Your task to perform on an android device: change the clock display to analog Image 0: 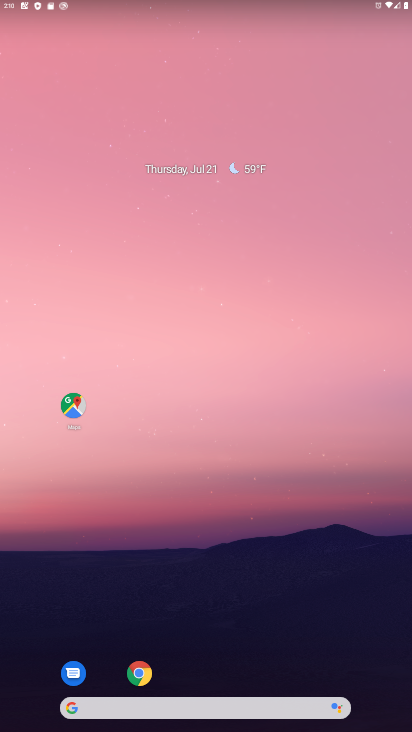
Step 0: drag from (208, 707) to (204, 157)
Your task to perform on an android device: change the clock display to analog Image 1: 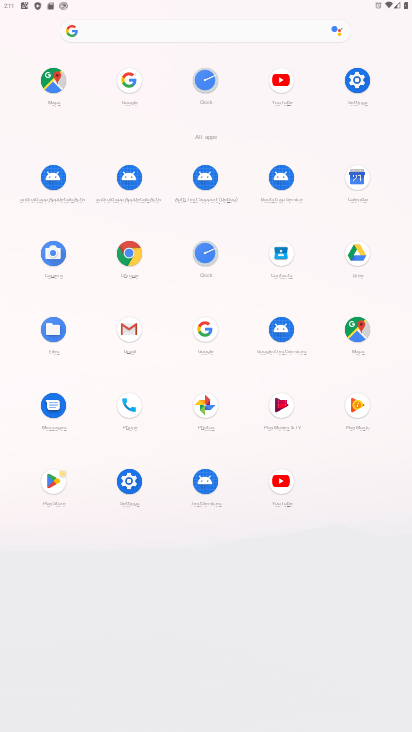
Step 1: click (207, 254)
Your task to perform on an android device: change the clock display to analog Image 2: 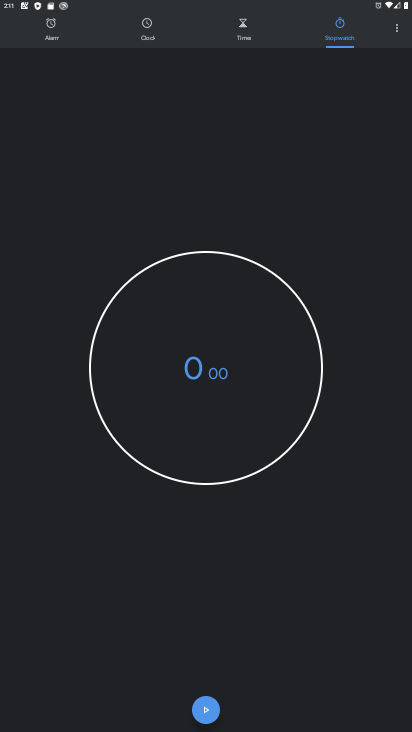
Step 2: click (399, 32)
Your task to perform on an android device: change the clock display to analog Image 3: 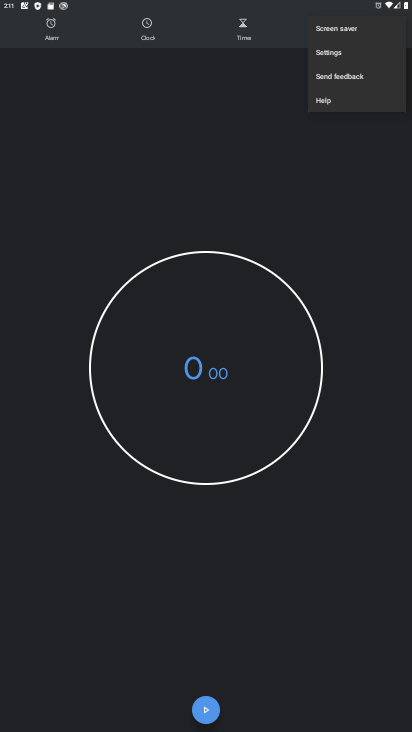
Step 3: click (342, 57)
Your task to perform on an android device: change the clock display to analog Image 4: 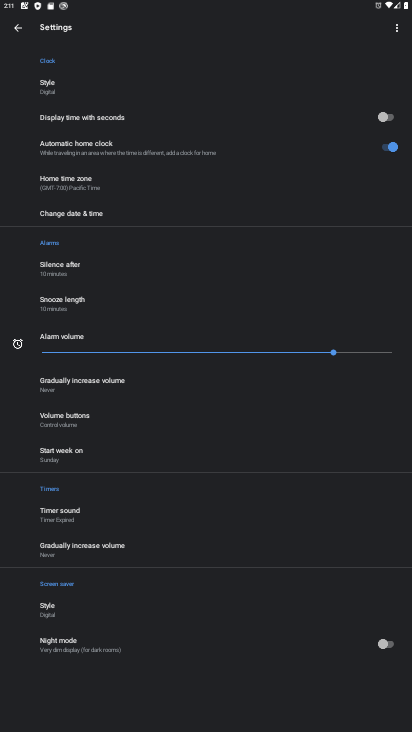
Step 4: click (52, 93)
Your task to perform on an android device: change the clock display to analog Image 5: 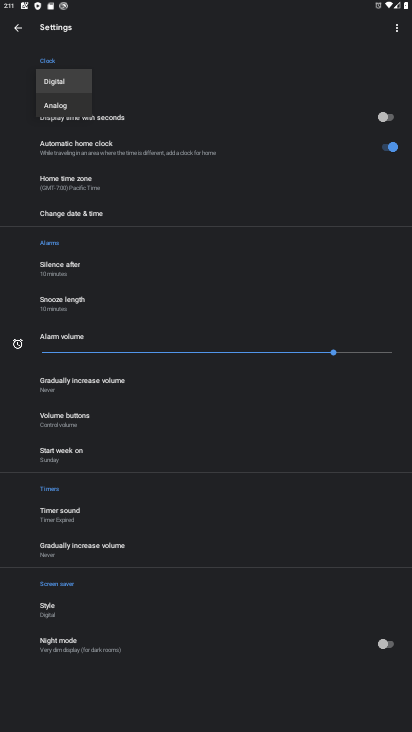
Step 5: click (57, 105)
Your task to perform on an android device: change the clock display to analog Image 6: 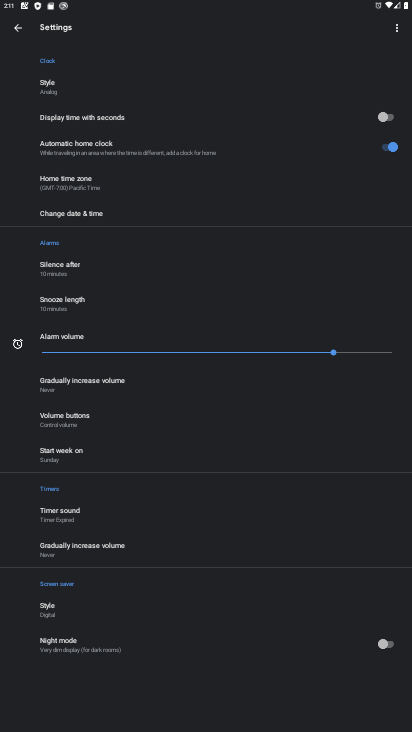
Step 6: task complete